Your task to perform on an android device: Open Youtube and go to "Your channel" Image 0: 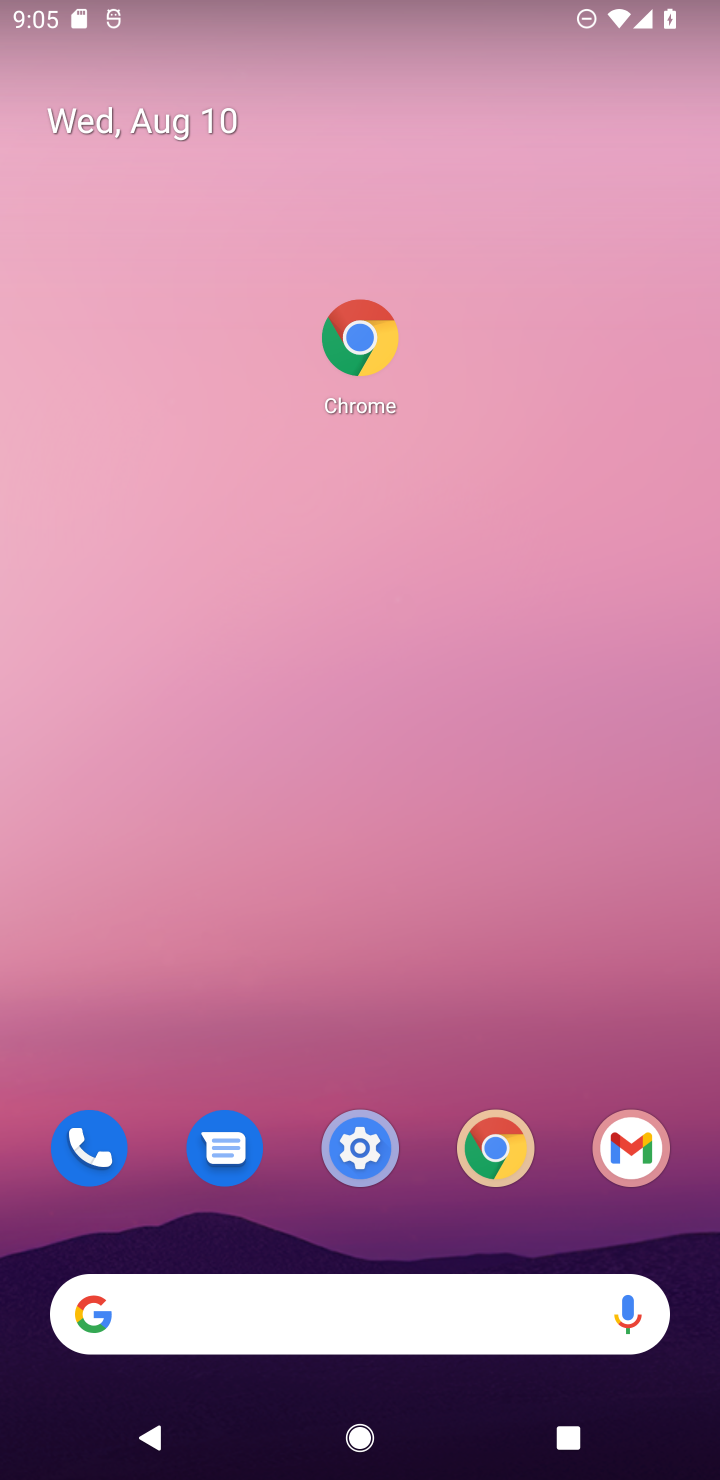
Step 0: drag from (473, 1220) to (452, 109)
Your task to perform on an android device: Open Youtube and go to "Your channel" Image 1: 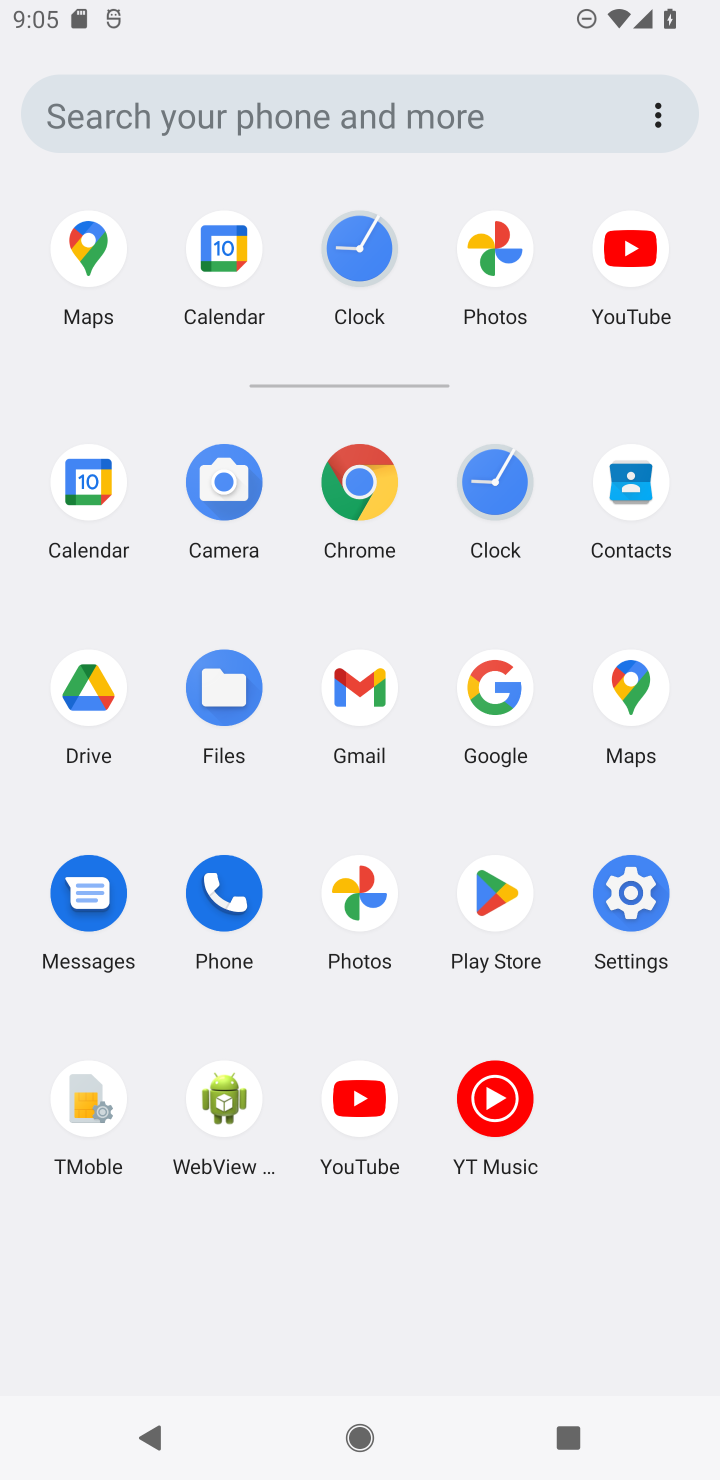
Step 1: click (358, 1095)
Your task to perform on an android device: Open Youtube and go to "Your channel" Image 2: 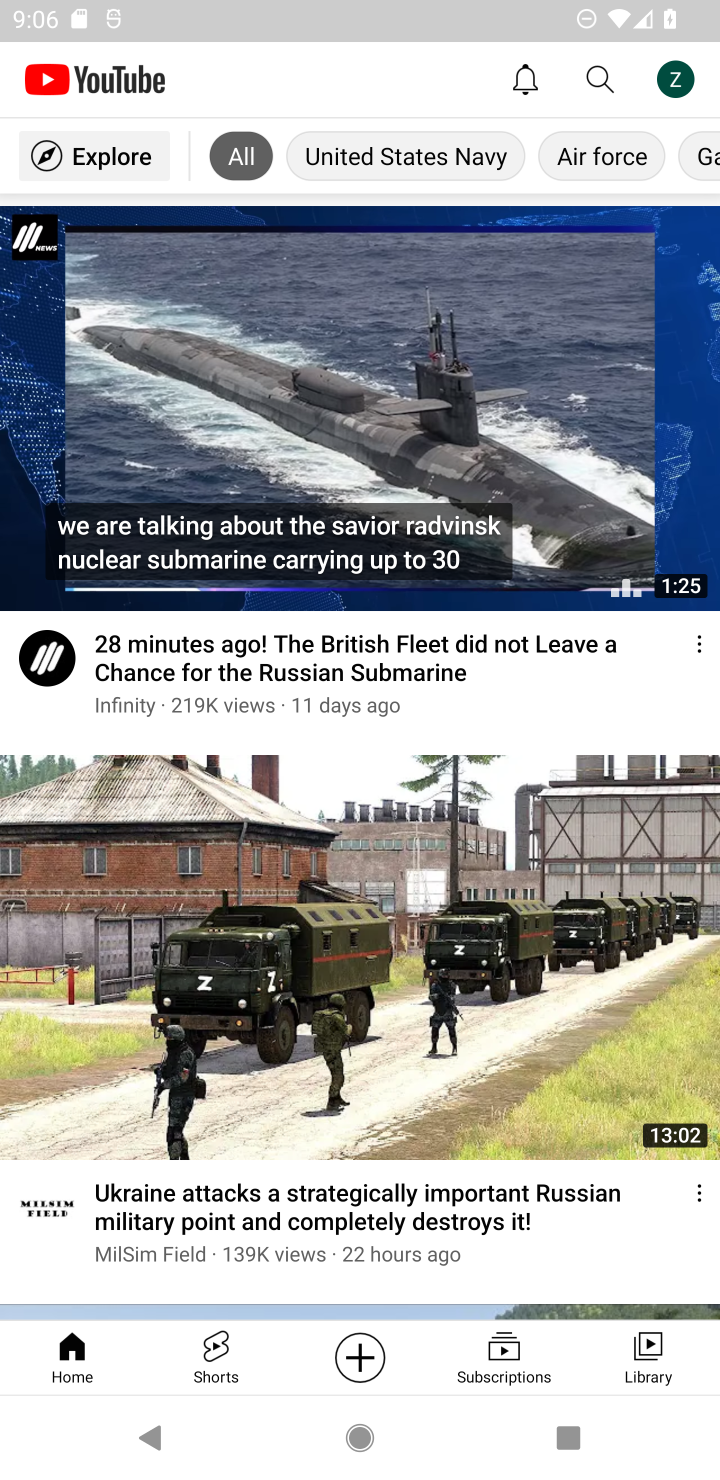
Step 2: click (624, 1377)
Your task to perform on an android device: Open Youtube and go to "Your channel" Image 3: 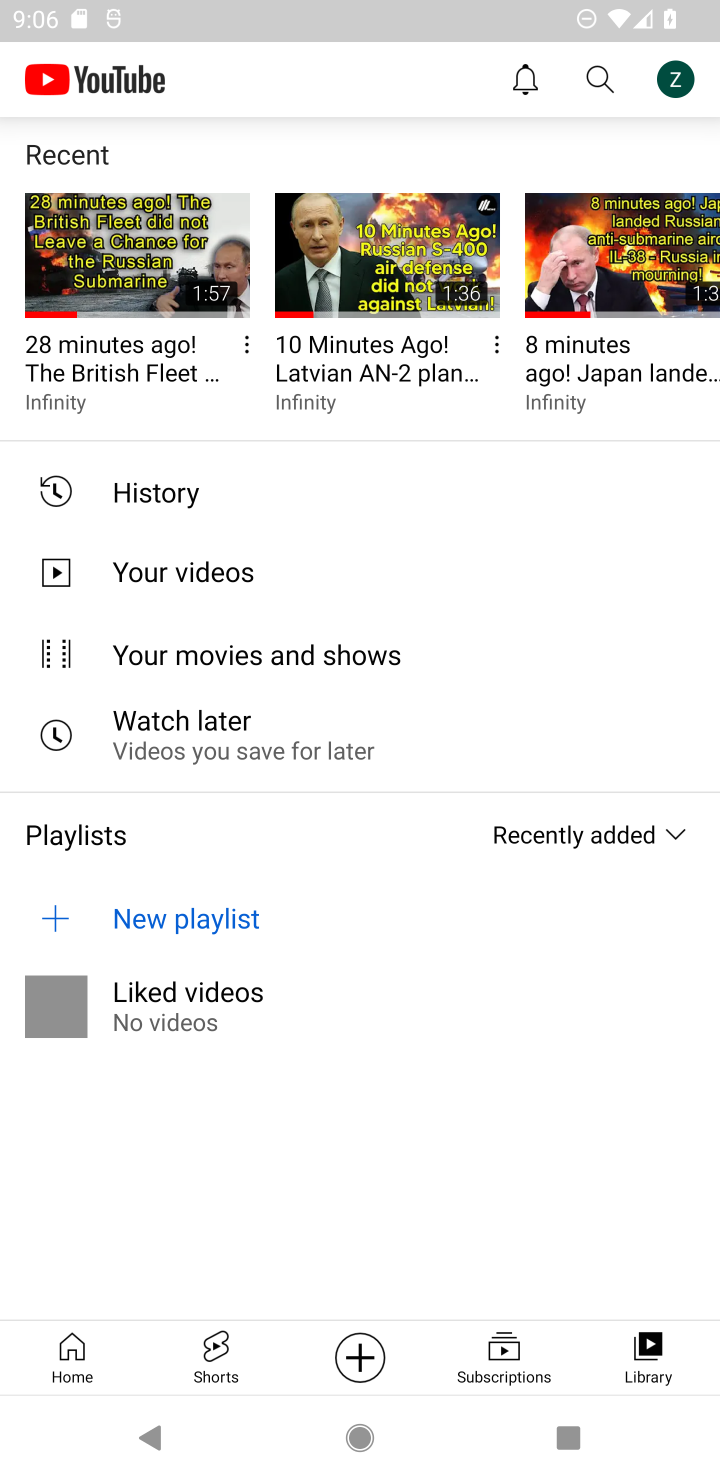
Step 3: click (344, 1367)
Your task to perform on an android device: Open Youtube and go to "Your channel" Image 4: 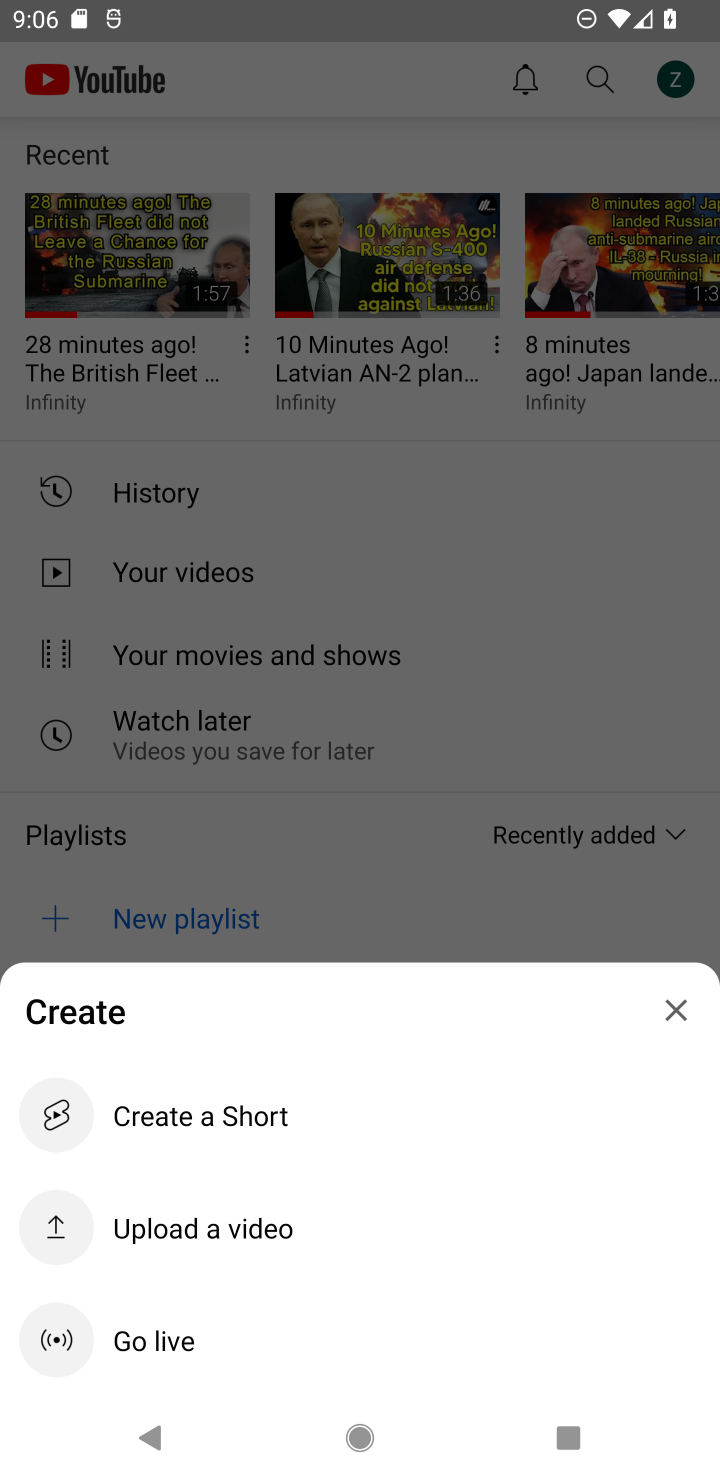
Step 4: click (669, 999)
Your task to perform on an android device: Open Youtube and go to "Your channel" Image 5: 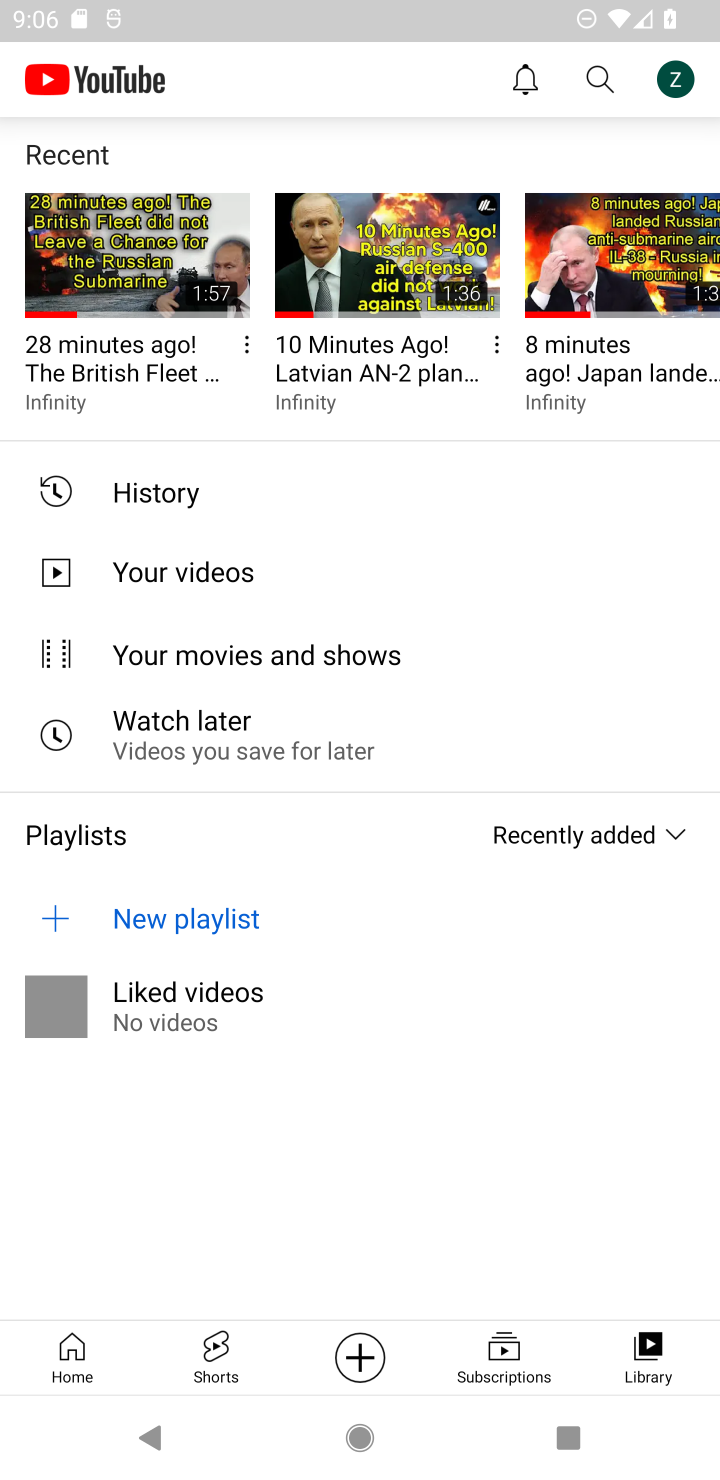
Step 5: task complete